Your task to perform on an android device: Open Youtube and go to "Your channel" Image 0: 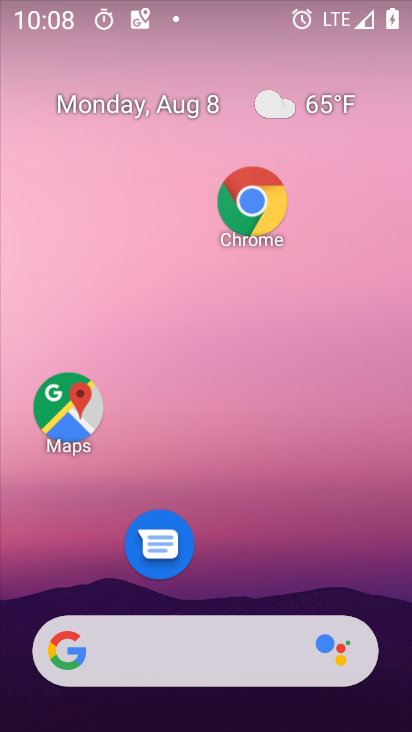
Step 0: press home button
Your task to perform on an android device: Open Youtube and go to "Your channel" Image 1: 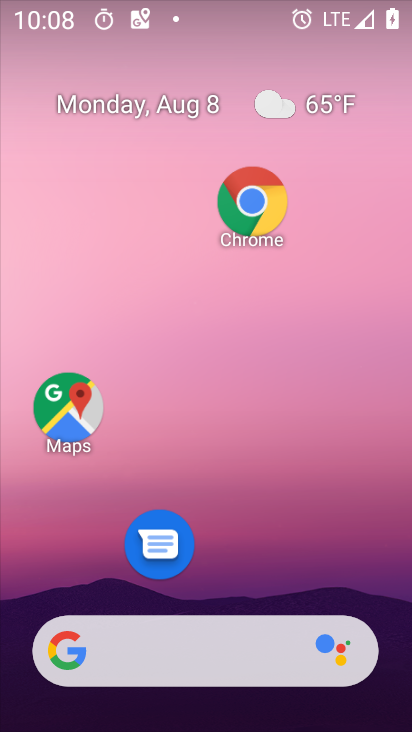
Step 1: drag from (216, 584) to (215, 46)
Your task to perform on an android device: Open Youtube and go to "Your channel" Image 2: 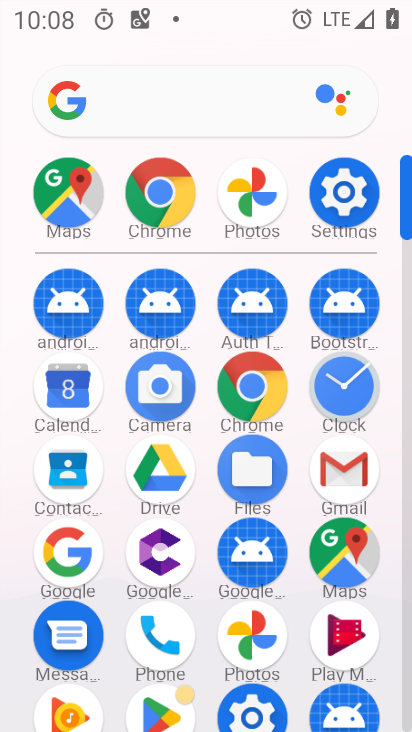
Step 2: drag from (199, 599) to (220, 185)
Your task to perform on an android device: Open Youtube and go to "Your channel" Image 3: 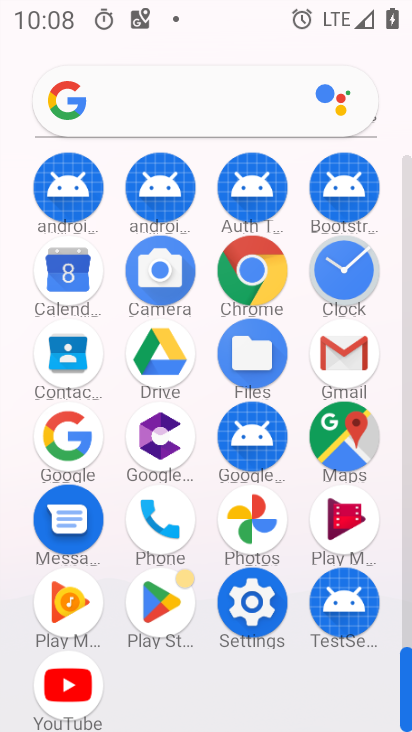
Step 3: click (66, 679)
Your task to perform on an android device: Open Youtube and go to "Your channel" Image 4: 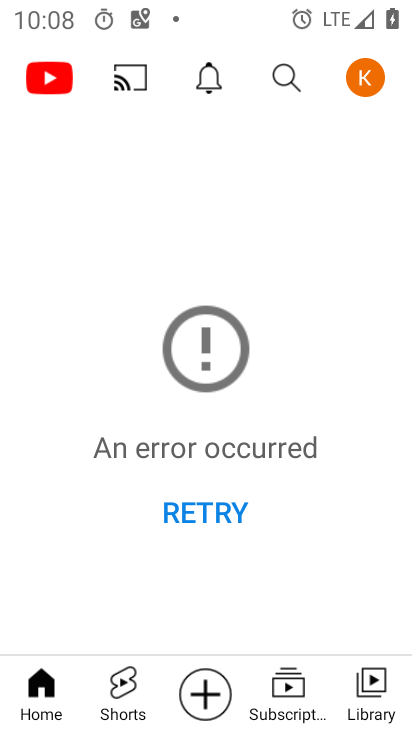
Step 4: click (200, 509)
Your task to perform on an android device: Open Youtube and go to "Your channel" Image 5: 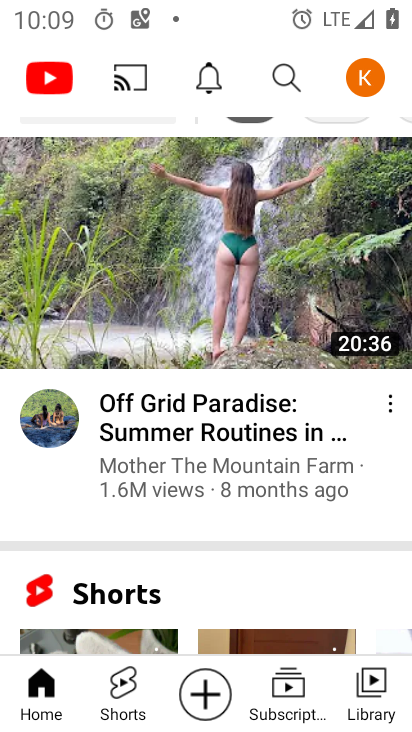
Step 5: click (363, 81)
Your task to perform on an android device: Open Youtube and go to "Your channel" Image 6: 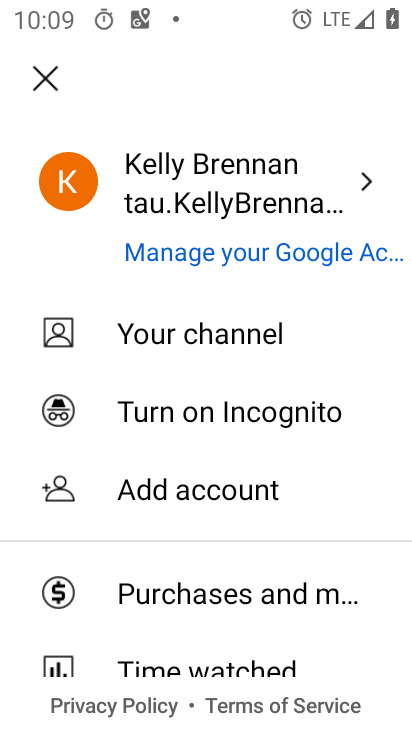
Step 6: click (292, 332)
Your task to perform on an android device: Open Youtube and go to "Your channel" Image 7: 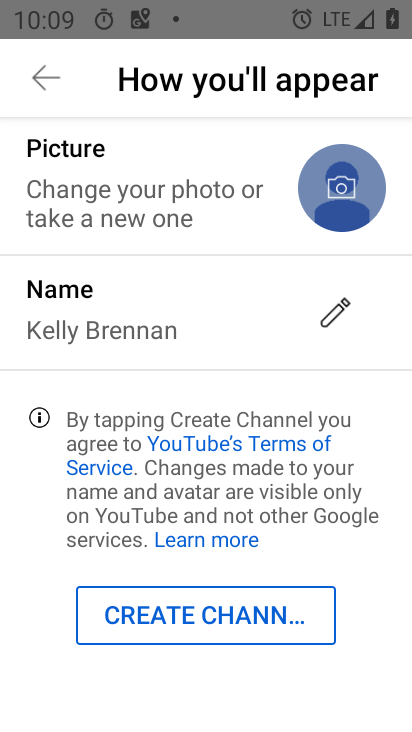
Step 7: task complete